Your task to perform on an android device: toggle notifications settings in the gmail app Image 0: 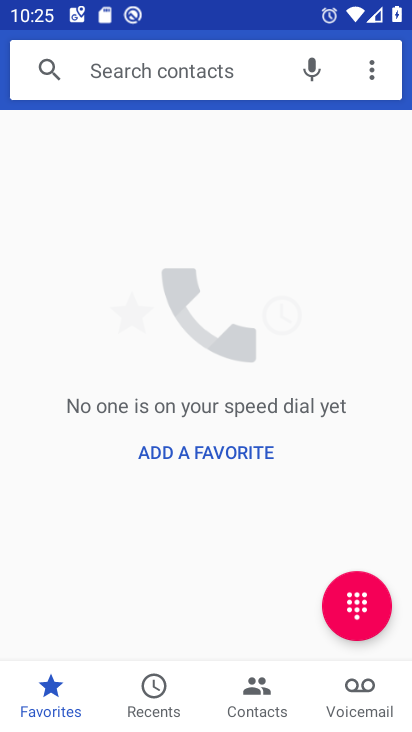
Step 0: drag from (394, 620) to (387, 192)
Your task to perform on an android device: toggle notifications settings in the gmail app Image 1: 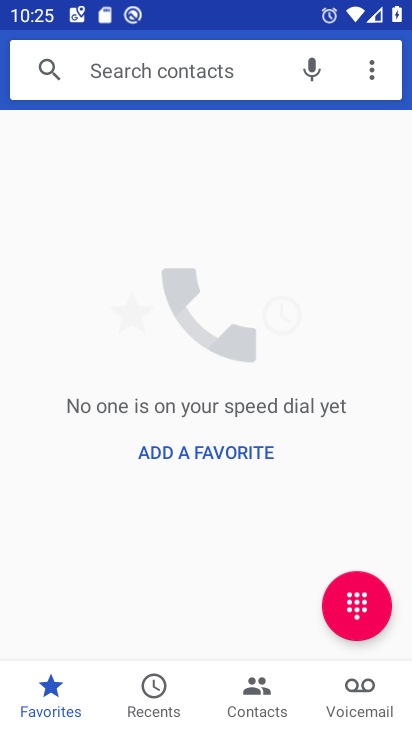
Step 1: press home button
Your task to perform on an android device: toggle notifications settings in the gmail app Image 2: 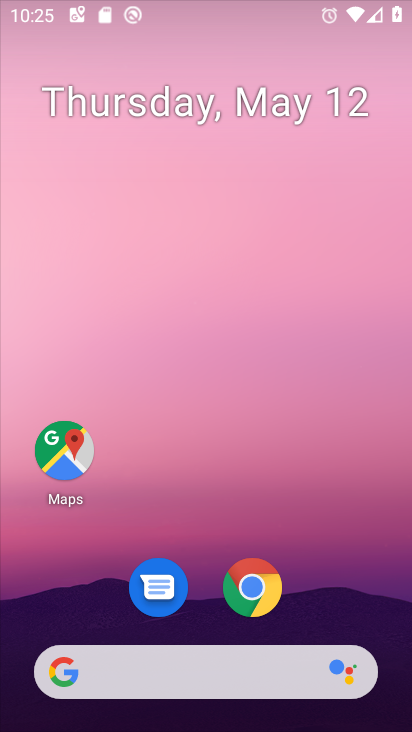
Step 2: drag from (380, 617) to (303, 38)
Your task to perform on an android device: toggle notifications settings in the gmail app Image 3: 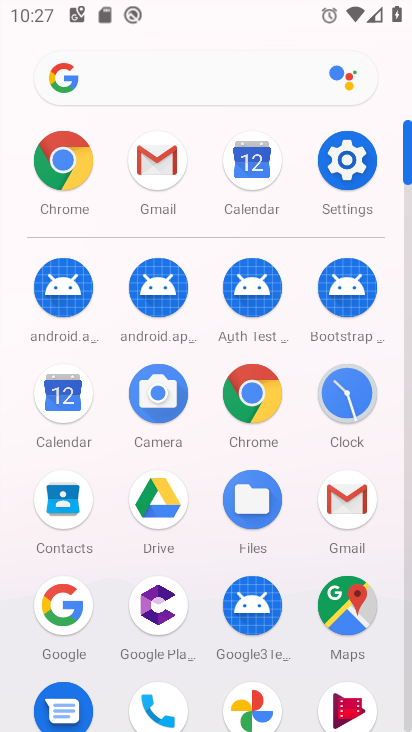
Step 3: click (335, 503)
Your task to perform on an android device: toggle notifications settings in the gmail app Image 4: 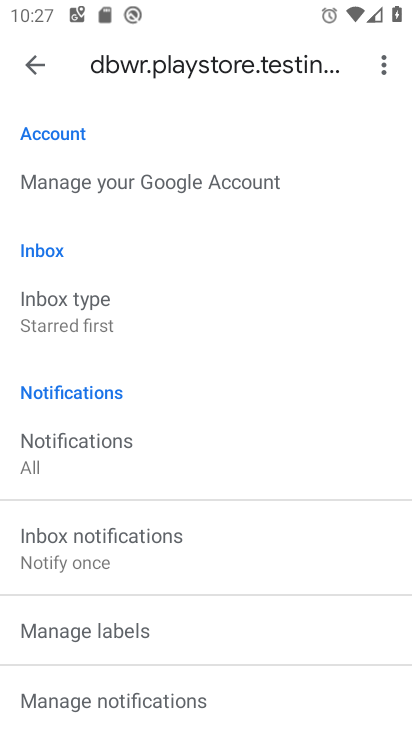
Step 4: click (135, 466)
Your task to perform on an android device: toggle notifications settings in the gmail app Image 5: 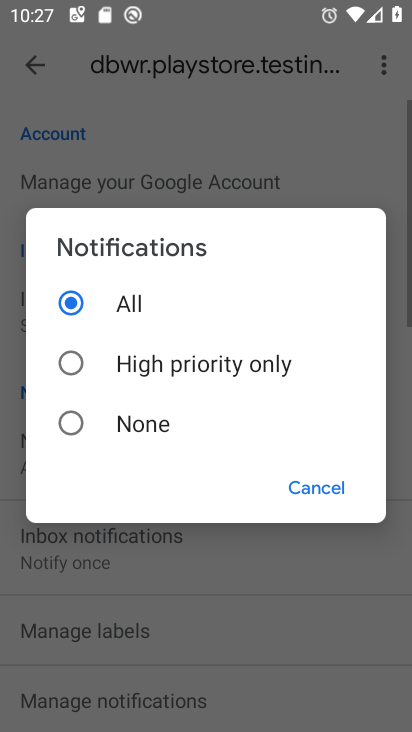
Step 5: click (160, 424)
Your task to perform on an android device: toggle notifications settings in the gmail app Image 6: 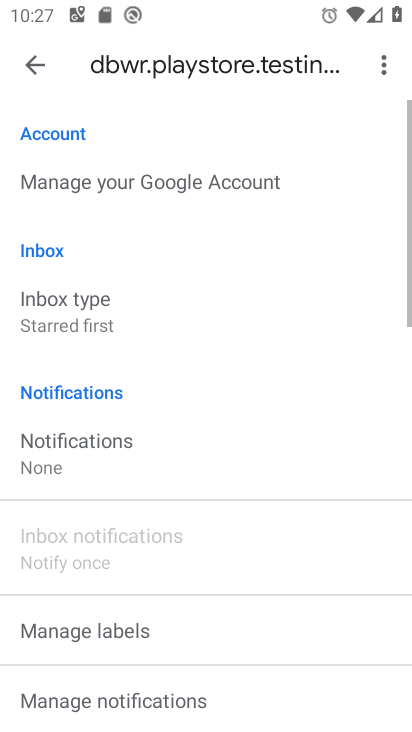
Step 6: task complete